Your task to perform on an android device: turn off javascript in the chrome app Image 0: 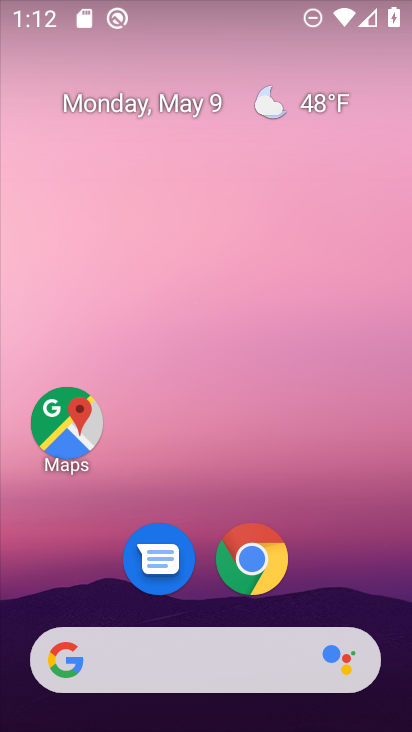
Step 0: drag from (172, 603) to (183, 208)
Your task to perform on an android device: turn off javascript in the chrome app Image 1: 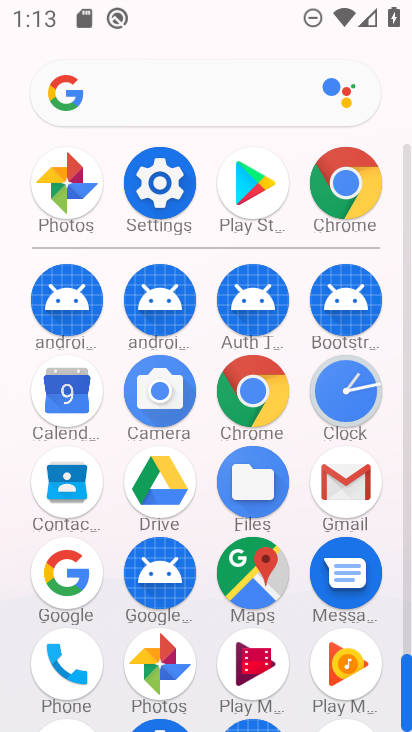
Step 1: click (257, 387)
Your task to perform on an android device: turn off javascript in the chrome app Image 2: 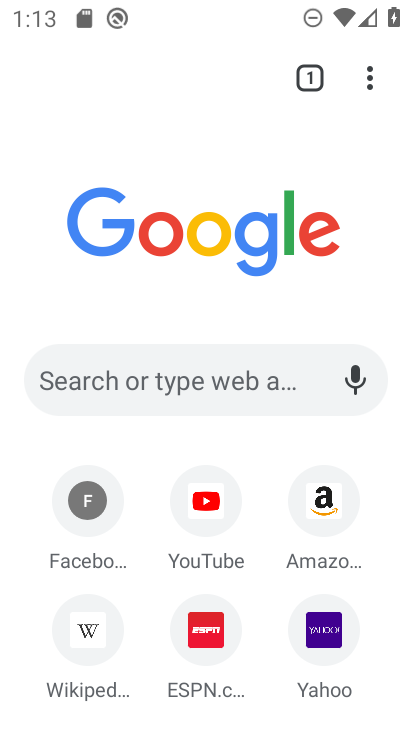
Step 2: drag from (267, 518) to (268, 246)
Your task to perform on an android device: turn off javascript in the chrome app Image 3: 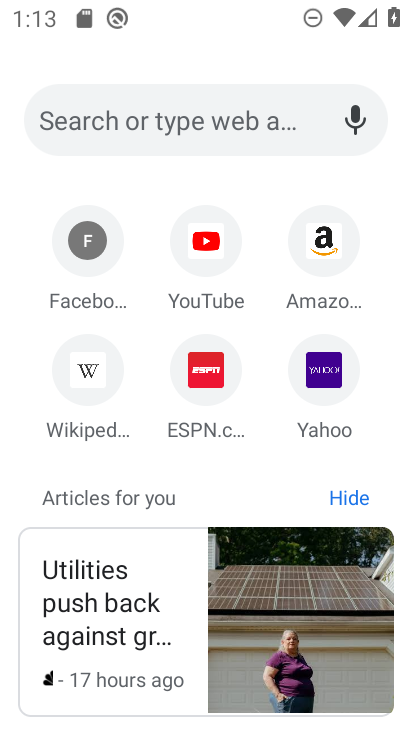
Step 3: drag from (274, 484) to (279, 241)
Your task to perform on an android device: turn off javascript in the chrome app Image 4: 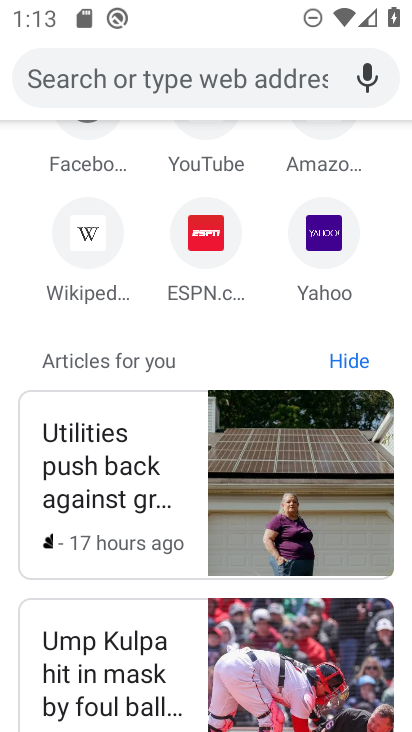
Step 4: drag from (249, 370) to (285, 119)
Your task to perform on an android device: turn off javascript in the chrome app Image 5: 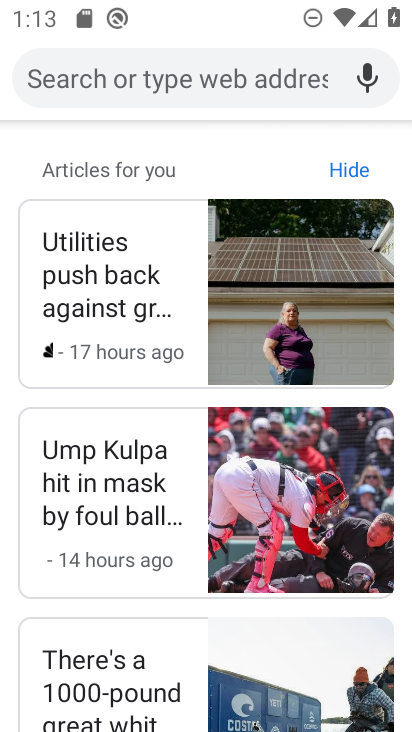
Step 5: drag from (263, 129) to (308, 674)
Your task to perform on an android device: turn off javascript in the chrome app Image 6: 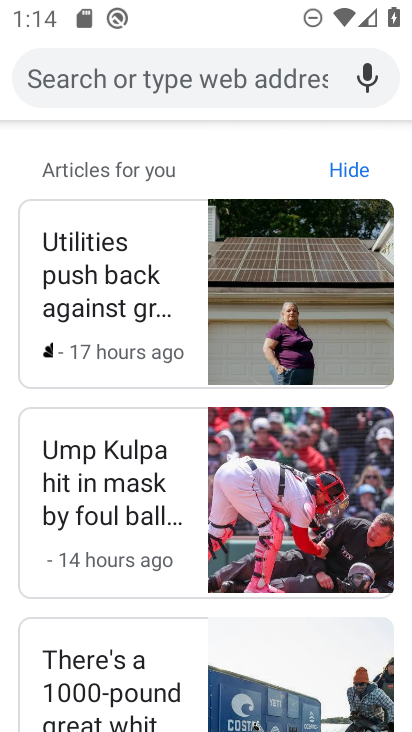
Step 6: drag from (270, 171) to (293, 439)
Your task to perform on an android device: turn off javascript in the chrome app Image 7: 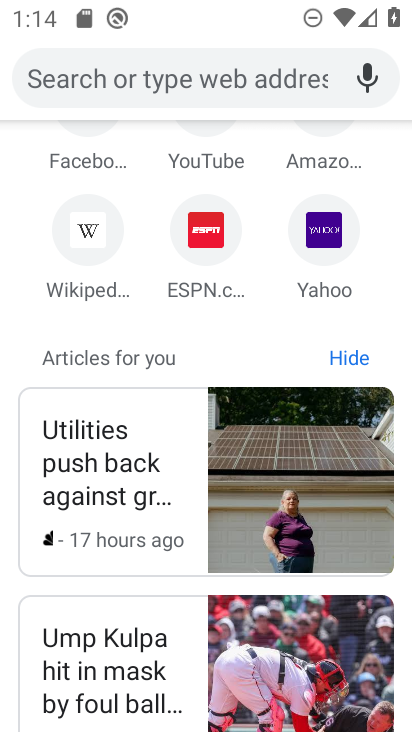
Step 7: drag from (272, 173) to (326, 690)
Your task to perform on an android device: turn off javascript in the chrome app Image 8: 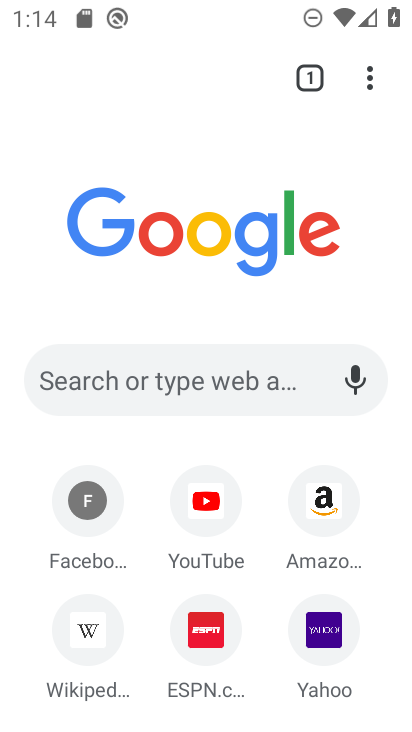
Step 8: drag from (149, 633) to (228, 354)
Your task to perform on an android device: turn off javascript in the chrome app Image 9: 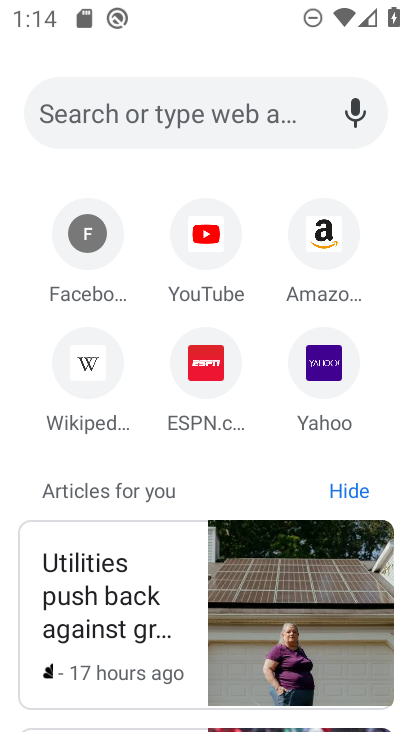
Step 9: drag from (240, 300) to (290, 688)
Your task to perform on an android device: turn off javascript in the chrome app Image 10: 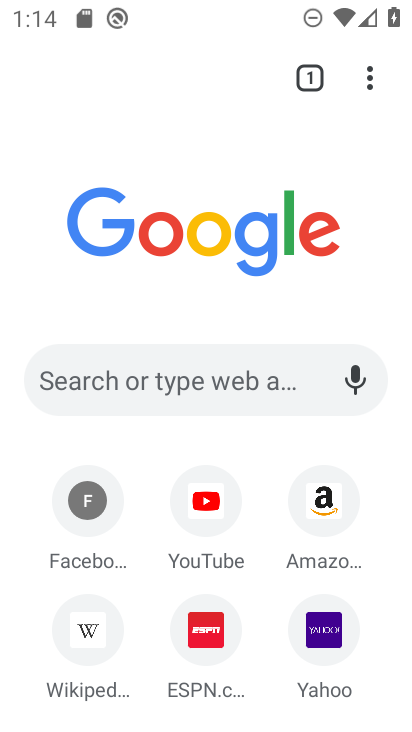
Step 10: click (371, 88)
Your task to perform on an android device: turn off javascript in the chrome app Image 11: 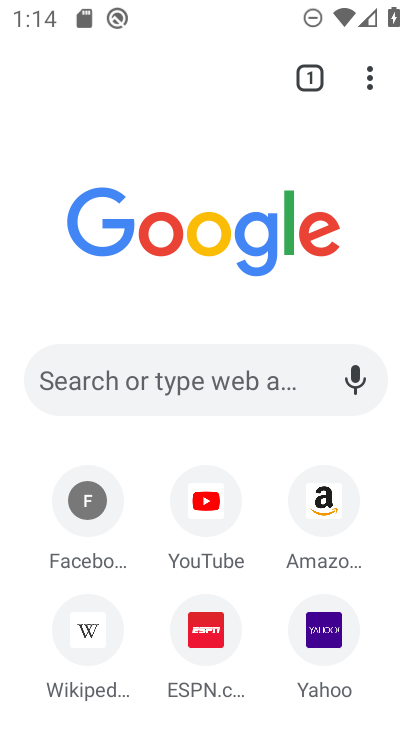
Step 11: drag from (372, 82) to (154, 621)
Your task to perform on an android device: turn off javascript in the chrome app Image 12: 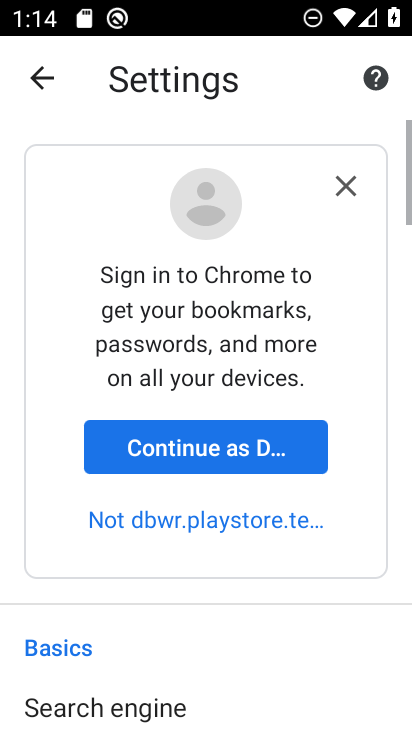
Step 12: drag from (153, 621) to (259, 155)
Your task to perform on an android device: turn off javascript in the chrome app Image 13: 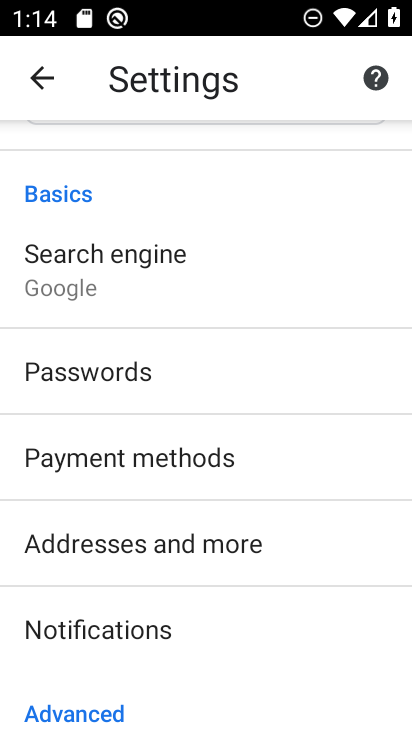
Step 13: drag from (226, 622) to (323, 133)
Your task to perform on an android device: turn off javascript in the chrome app Image 14: 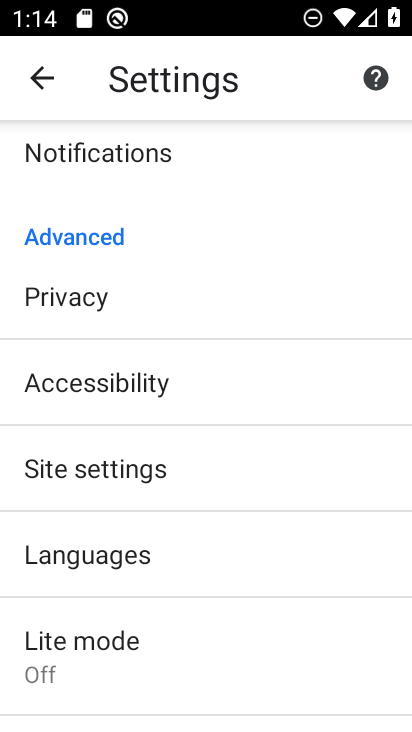
Step 14: click (146, 448)
Your task to perform on an android device: turn off javascript in the chrome app Image 15: 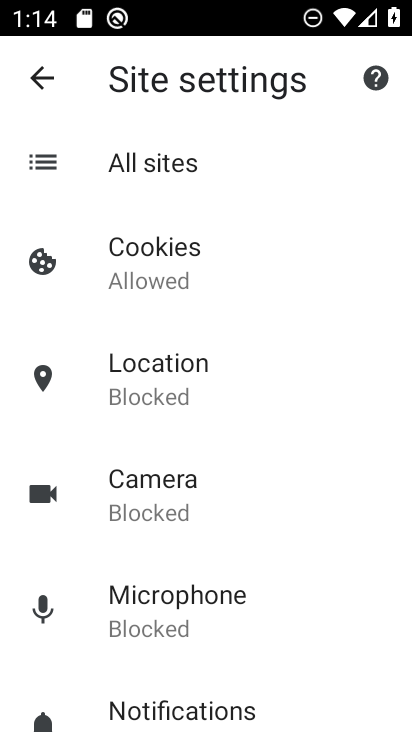
Step 15: drag from (233, 626) to (306, 281)
Your task to perform on an android device: turn off javascript in the chrome app Image 16: 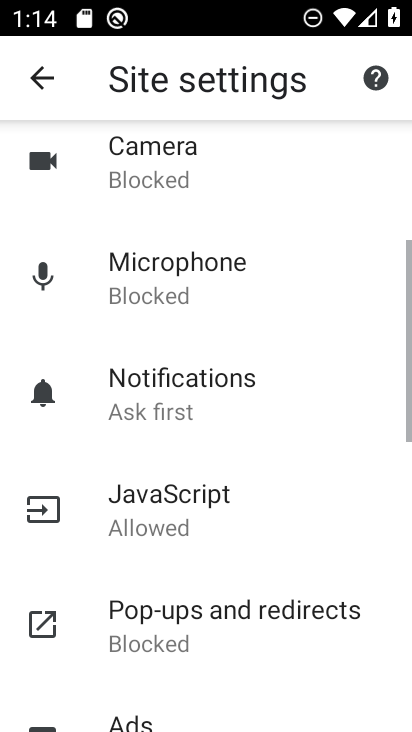
Step 16: click (190, 510)
Your task to perform on an android device: turn off javascript in the chrome app Image 17: 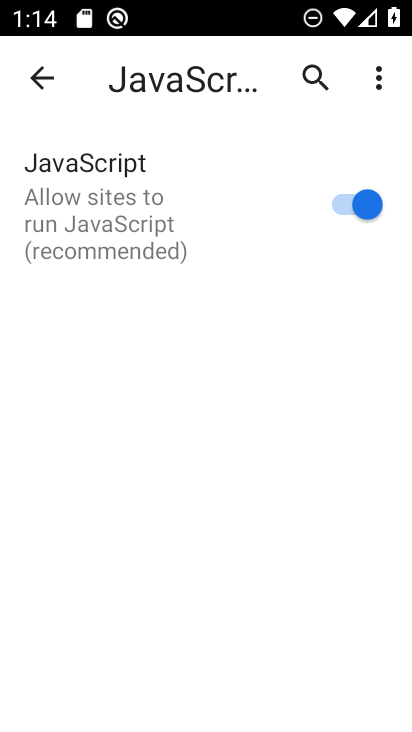
Step 17: drag from (166, 632) to (247, 268)
Your task to perform on an android device: turn off javascript in the chrome app Image 18: 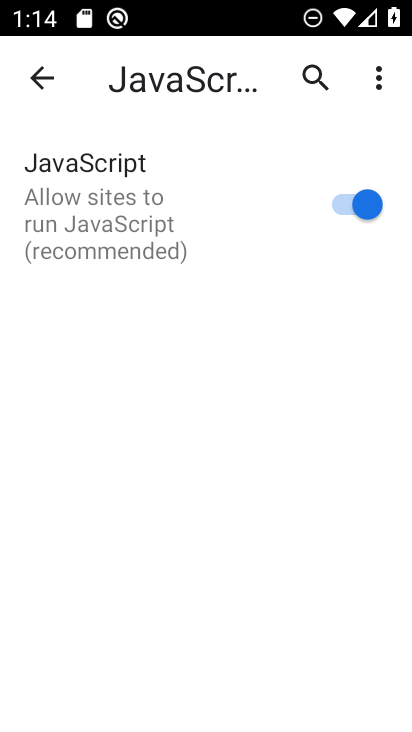
Step 18: click (361, 191)
Your task to perform on an android device: turn off javascript in the chrome app Image 19: 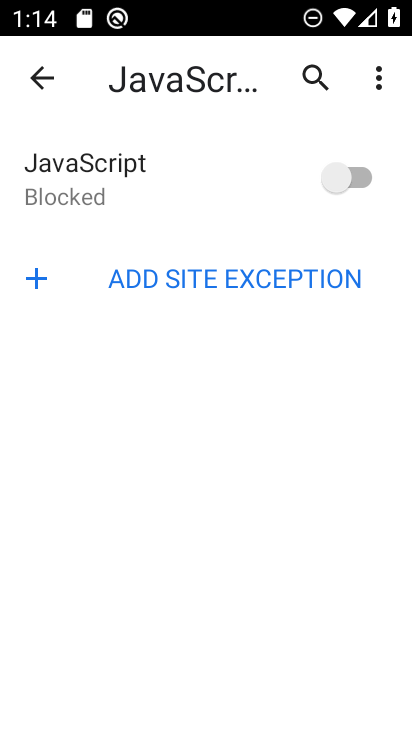
Step 19: task complete